Your task to perform on an android device: turn off data saver in the chrome app Image 0: 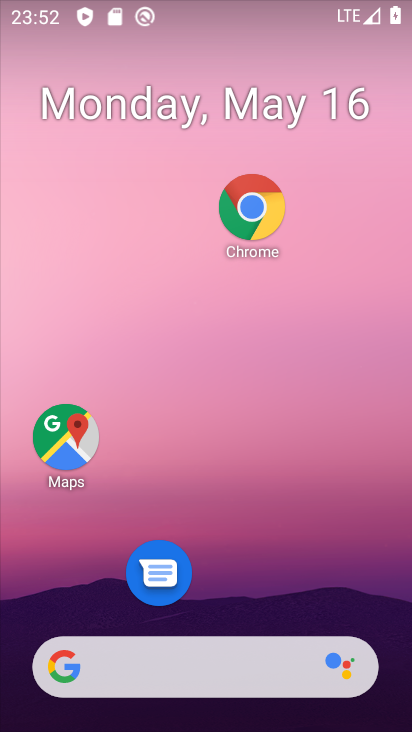
Step 0: drag from (288, 650) to (331, 115)
Your task to perform on an android device: turn off data saver in the chrome app Image 1: 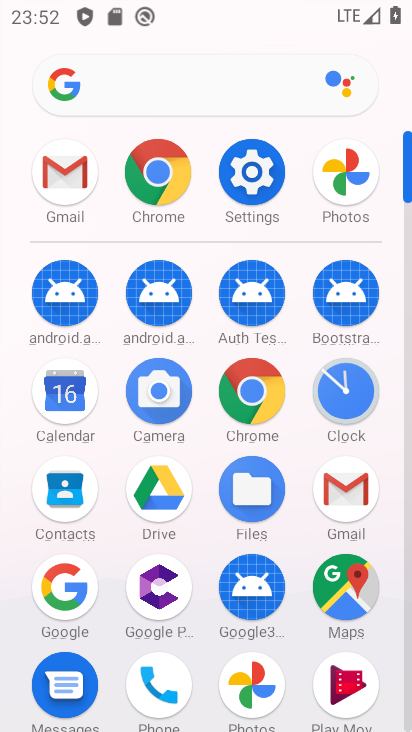
Step 1: click (242, 385)
Your task to perform on an android device: turn off data saver in the chrome app Image 2: 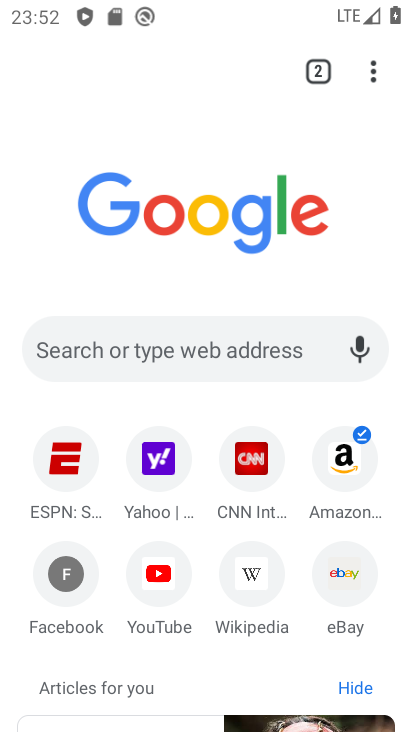
Step 2: click (383, 73)
Your task to perform on an android device: turn off data saver in the chrome app Image 3: 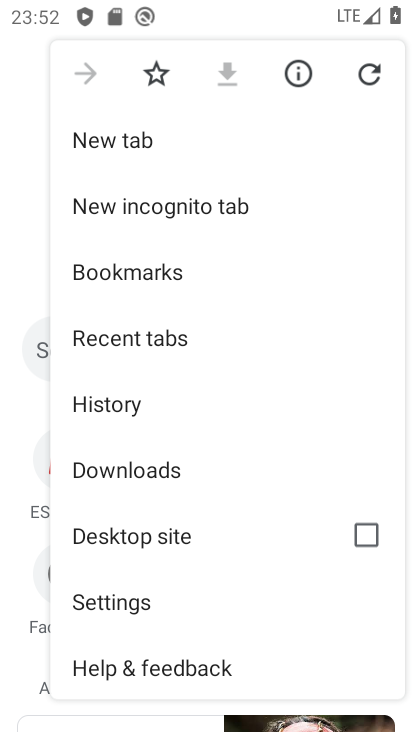
Step 3: click (228, 606)
Your task to perform on an android device: turn off data saver in the chrome app Image 4: 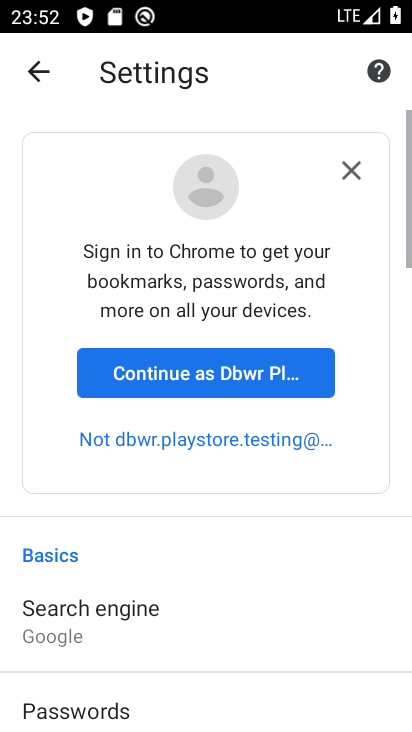
Step 4: drag from (231, 629) to (294, 144)
Your task to perform on an android device: turn off data saver in the chrome app Image 5: 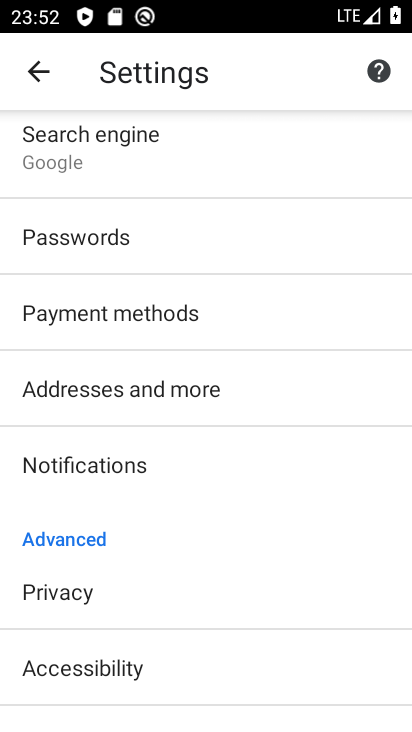
Step 5: drag from (223, 667) to (215, 285)
Your task to perform on an android device: turn off data saver in the chrome app Image 6: 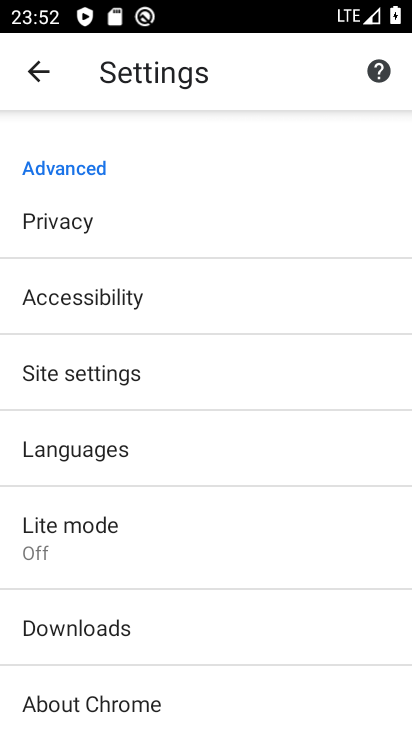
Step 6: click (100, 374)
Your task to perform on an android device: turn off data saver in the chrome app Image 7: 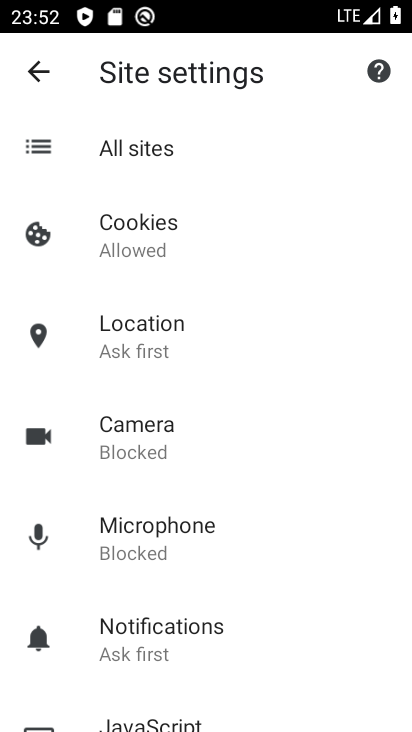
Step 7: press back button
Your task to perform on an android device: turn off data saver in the chrome app Image 8: 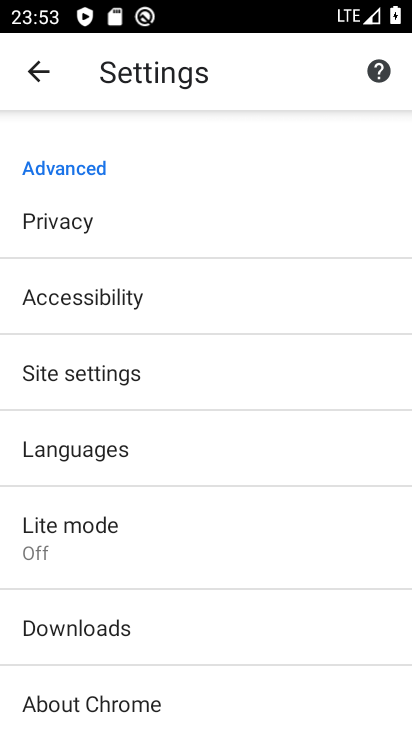
Step 8: click (194, 526)
Your task to perform on an android device: turn off data saver in the chrome app Image 9: 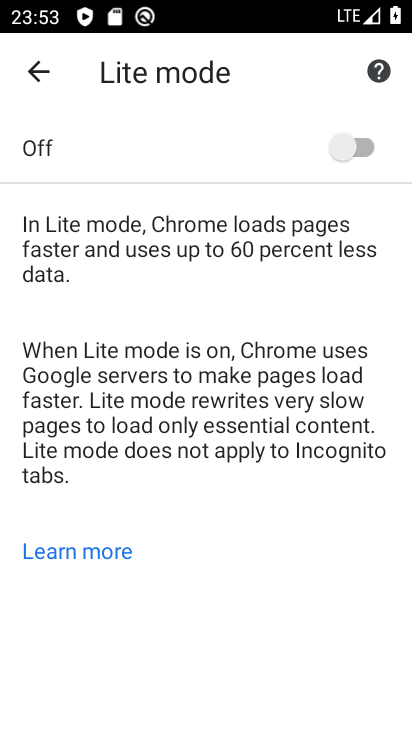
Step 9: task complete